Your task to perform on an android device: toggle translation in the chrome app Image 0: 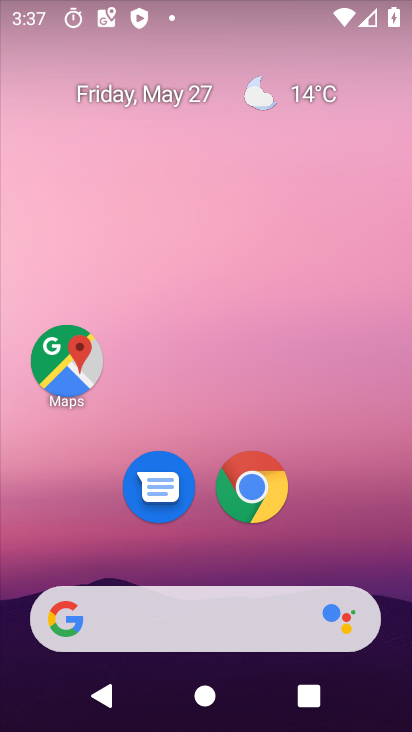
Step 0: drag from (316, 449) to (279, 96)
Your task to perform on an android device: toggle translation in the chrome app Image 1: 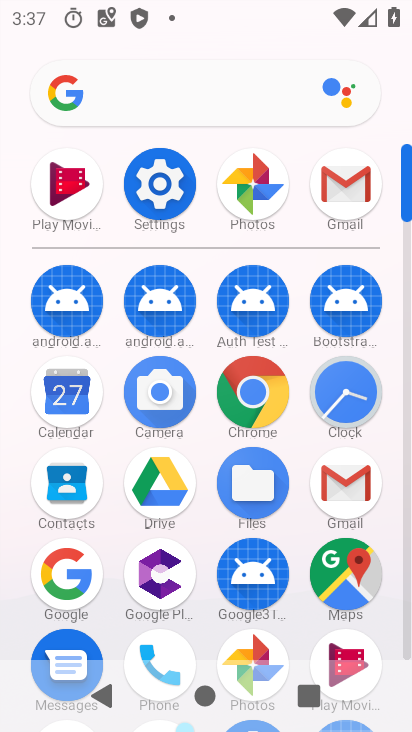
Step 1: click (264, 394)
Your task to perform on an android device: toggle translation in the chrome app Image 2: 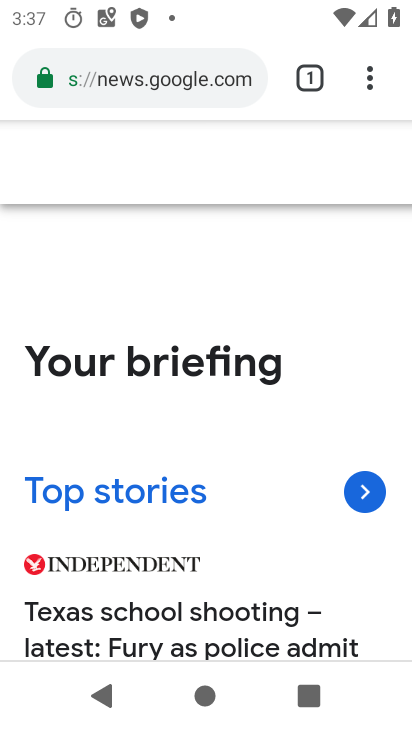
Step 2: drag from (374, 72) to (203, 558)
Your task to perform on an android device: toggle translation in the chrome app Image 3: 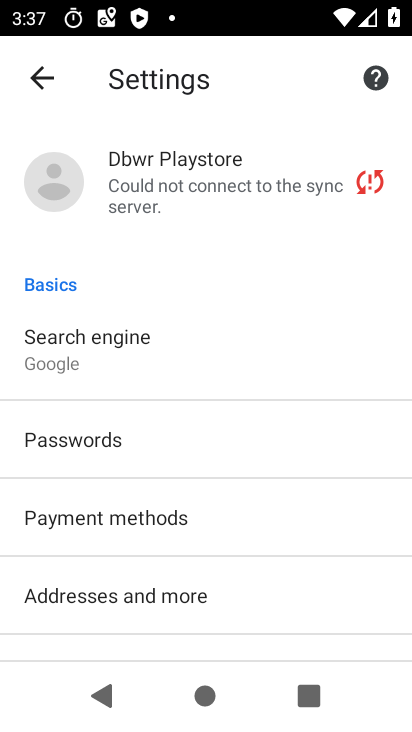
Step 3: drag from (144, 556) to (179, 114)
Your task to perform on an android device: toggle translation in the chrome app Image 4: 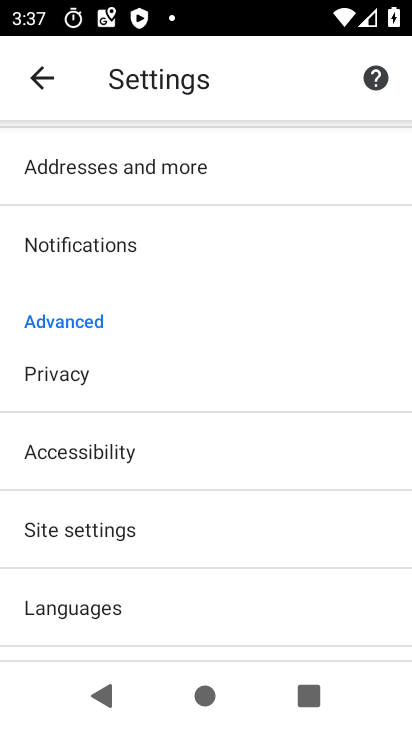
Step 4: click (131, 591)
Your task to perform on an android device: toggle translation in the chrome app Image 5: 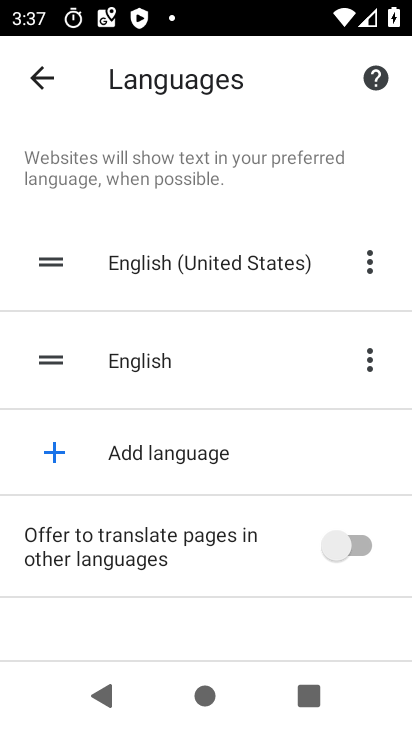
Step 5: click (332, 537)
Your task to perform on an android device: toggle translation in the chrome app Image 6: 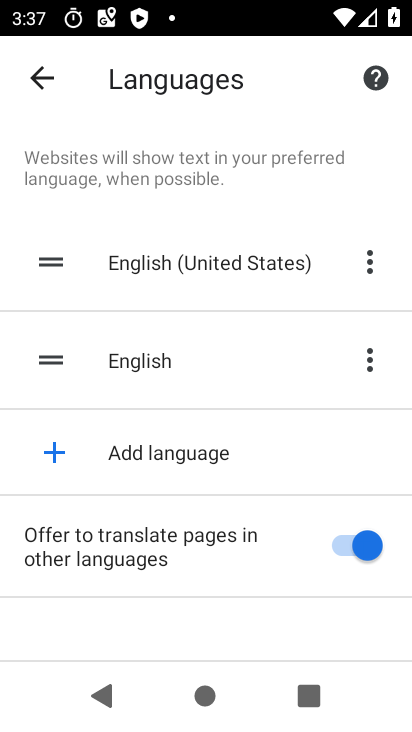
Step 6: task complete